Your task to perform on an android device: Open Google Image 0: 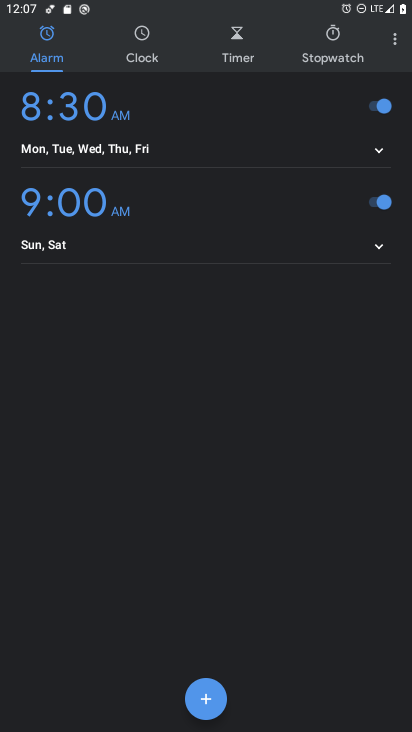
Step 0: press home button
Your task to perform on an android device: Open Google Image 1: 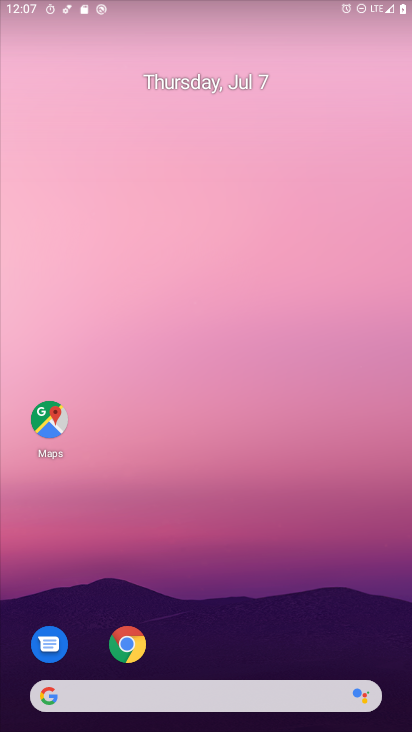
Step 1: drag from (288, 614) to (365, 137)
Your task to perform on an android device: Open Google Image 2: 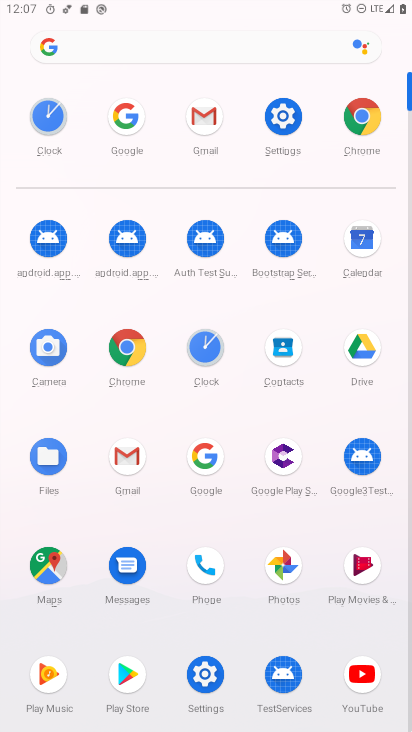
Step 2: click (124, 111)
Your task to perform on an android device: Open Google Image 3: 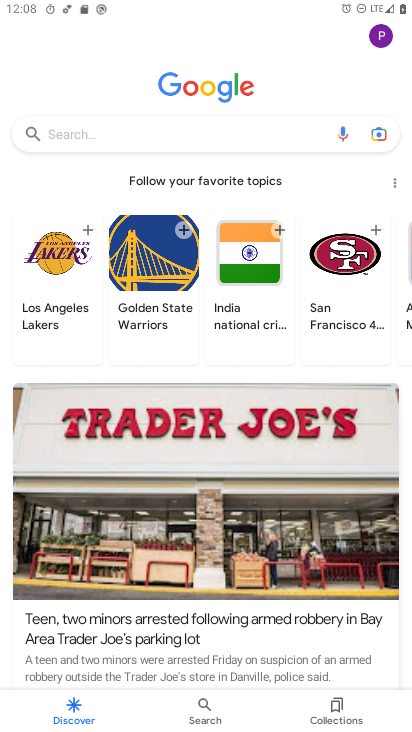
Step 3: task complete